Your task to perform on an android device: change the clock display to digital Image 0: 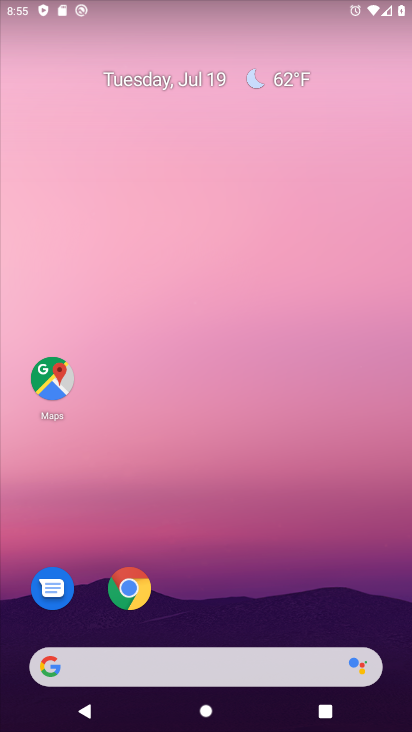
Step 0: drag from (269, 618) to (160, 10)
Your task to perform on an android device: change the clock display to digital Image 1: 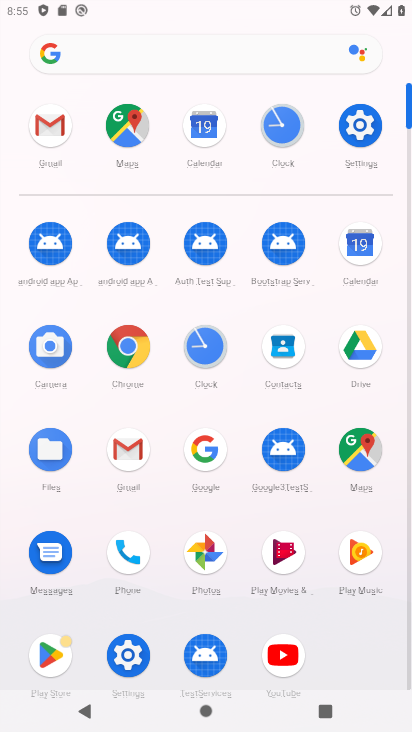
Step 1: click (212, 354)
Your task to perform on an android device: change the clock display to digital Image 2: 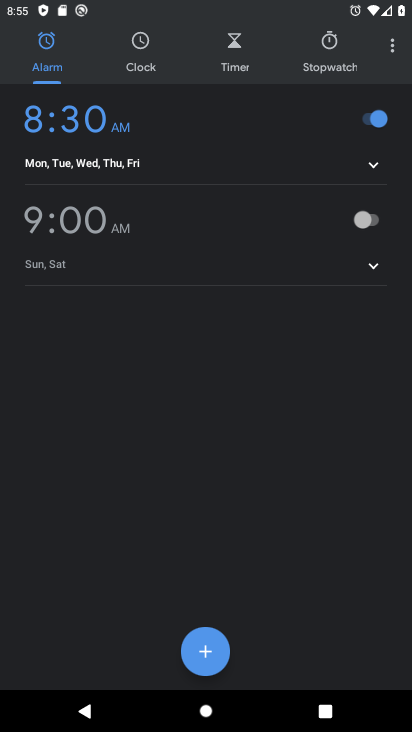
Step 2: click (392, 58)
Your task to perform on an android device: change the clock display to digital Image 3: 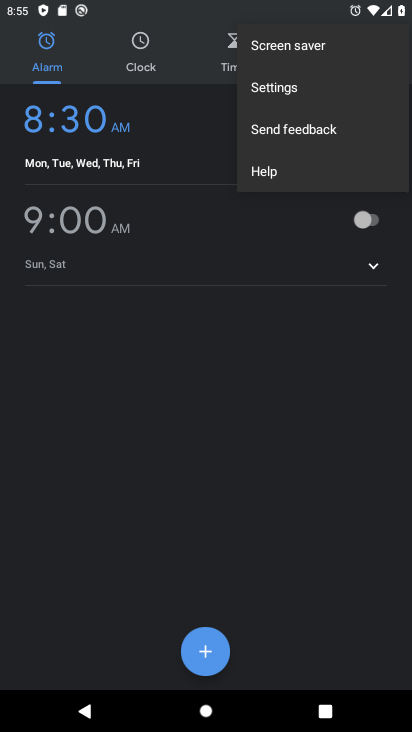
Step 3: click (290, 88)
Your task to perform on an android device: change the clock display to digital Image 4: 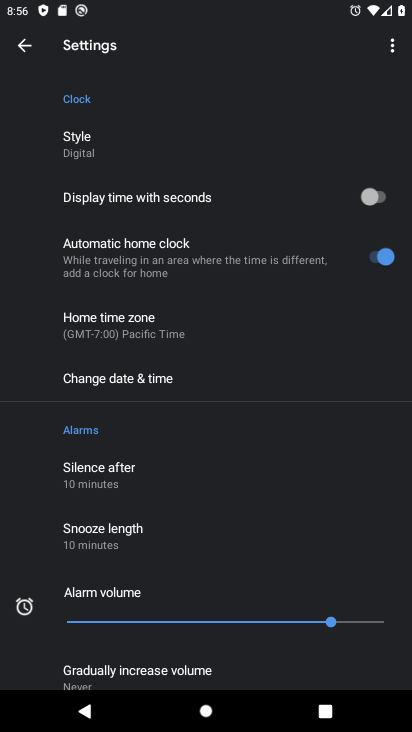
Step 4: click (102, 149)
Your task to perform on an android device: change the clock display to digital Image 5: 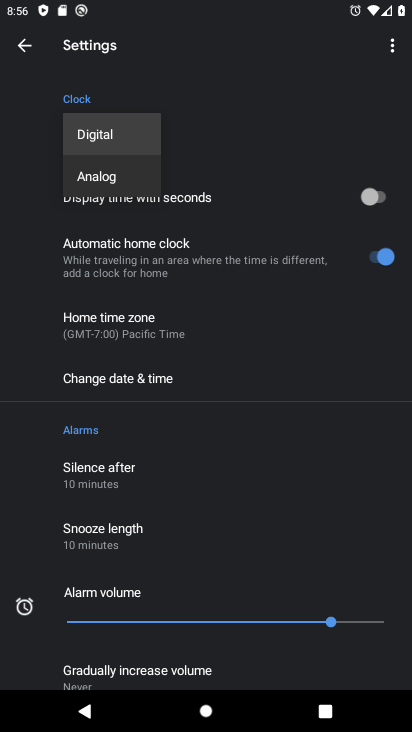
Step 5: click (118, 124)
Your task to perform on an android device: change the clock display to digital Image 6: 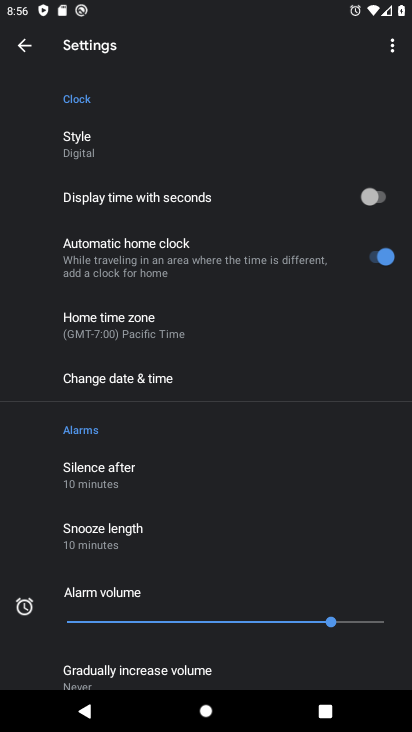
Step 6: task complete